Your task to perform on an android device: Open Google Image 0: 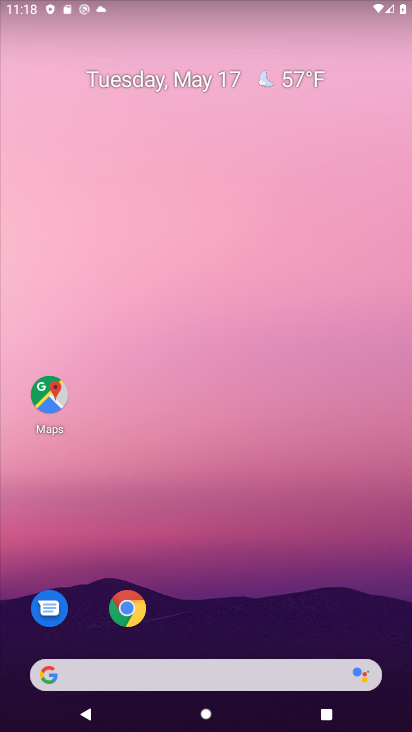
Step 0: click (169, 674)
Your task to perform on an android device: Open Google Image 1: 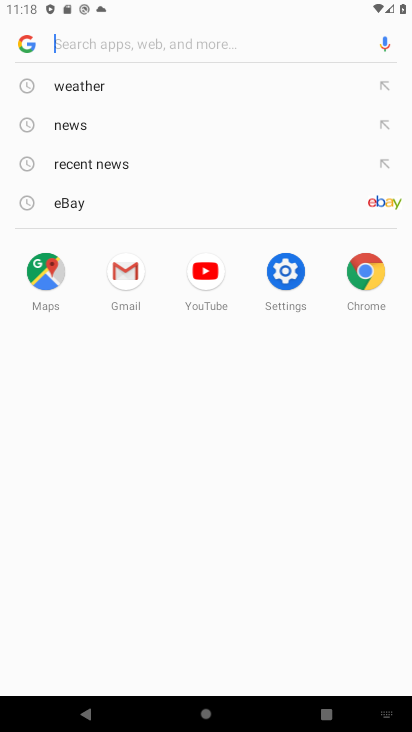
Step 1: click (29, 33)
Your task to perform on an android device: Open Google Image 2: 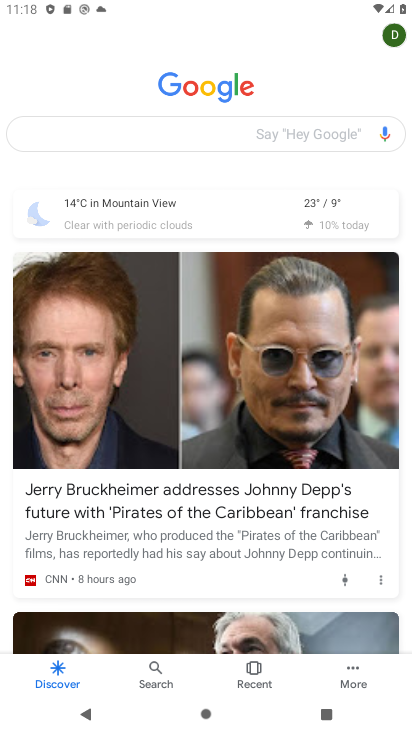
Step 2: task complete